Your task to perform on an android device: Toggle the flashlight Image 0: 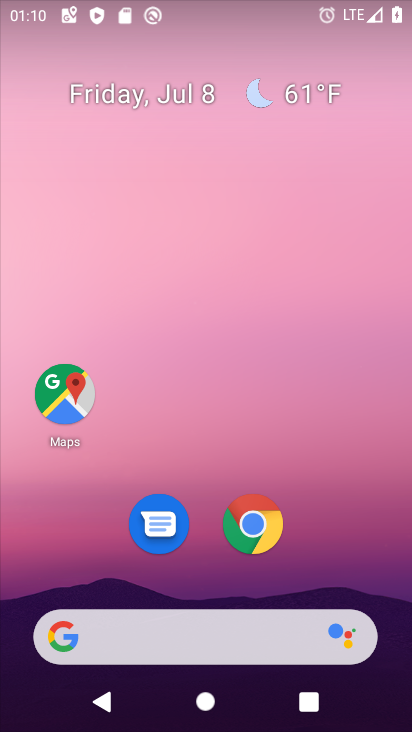
Step 0: drag from (308, 541) to (331, 6)
Your task to perform on an android device: Toggle the flashlight Image 1: 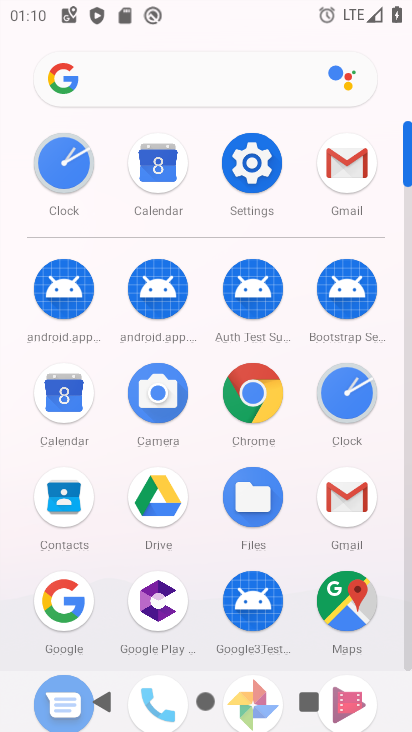
Step 1: click (259, 165)
Your task to perform on an android device: Toggle the flashlight Image 2: 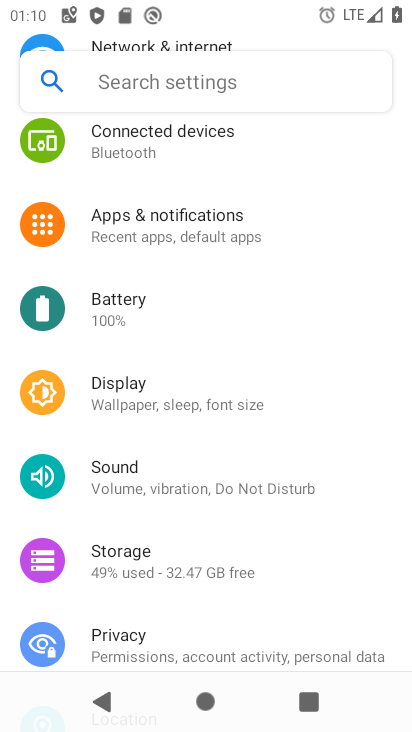
Step 2: drag from (251, 181) to (233, 659)
Your task to perform on an android device: Toggle the flashlight Image 3: 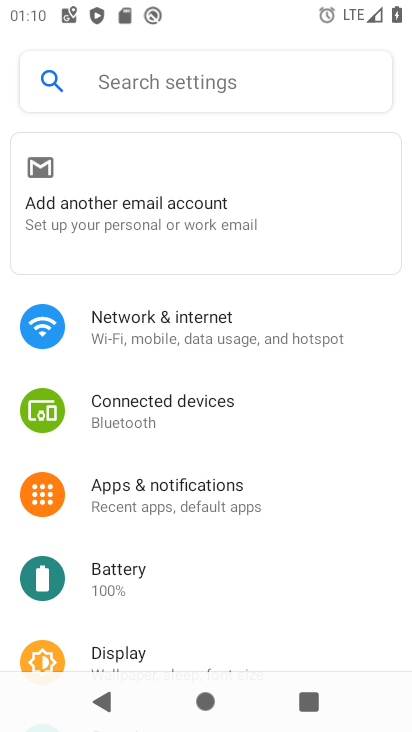
Step 3: click (229, 71)
Your task to perform on an android device: Toggle the flashlight Image 4: 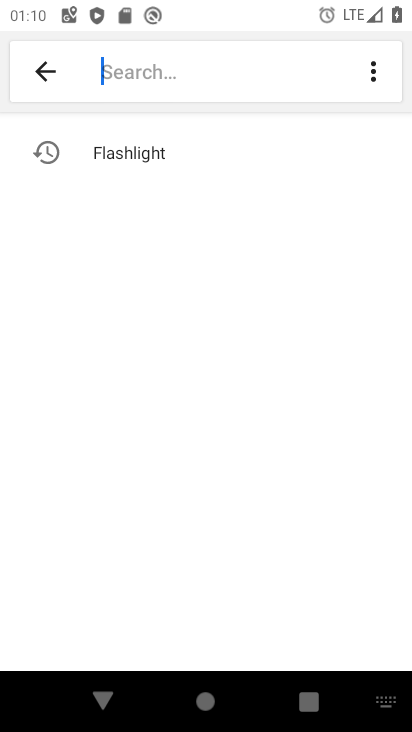
Step 4: click (155, 147)
Your task to perform on an android device: Toggle the flashlight Image 5: 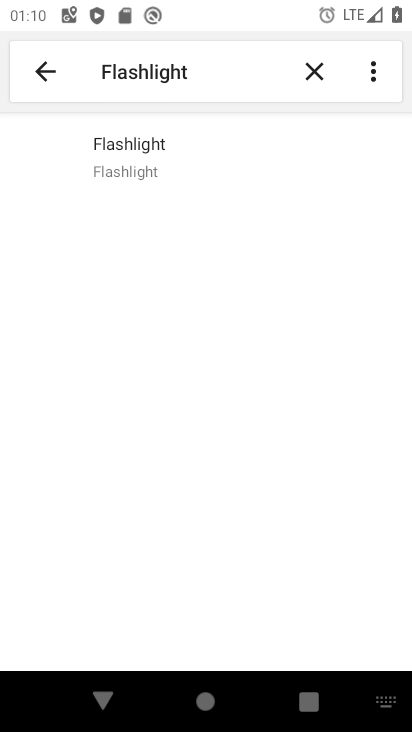
Step 5: click (140, 162)
Your task to perform on an android device: Toggle the flashlight Image 6: 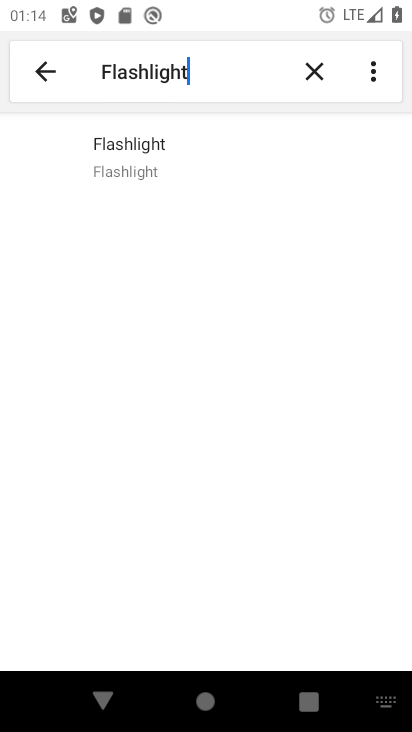
Step 6: task complete